Your task to perform on an android device: Open calendar and show me the fourth week of next month Image 0: 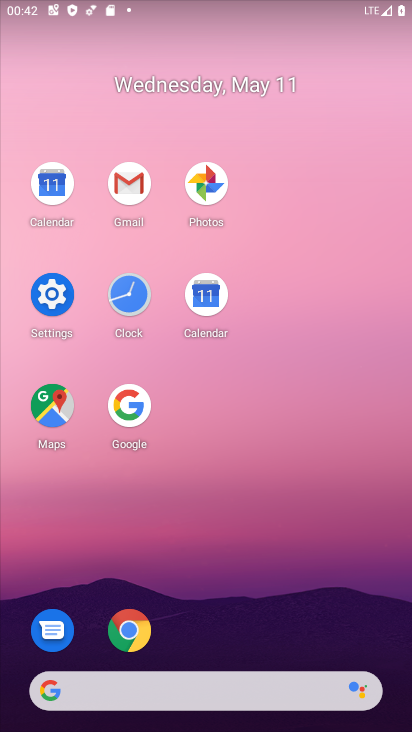
Step 0: click (206, 286)
Your task to perform on an android device: Open calendar and show me the fourth week of next month Image 1: 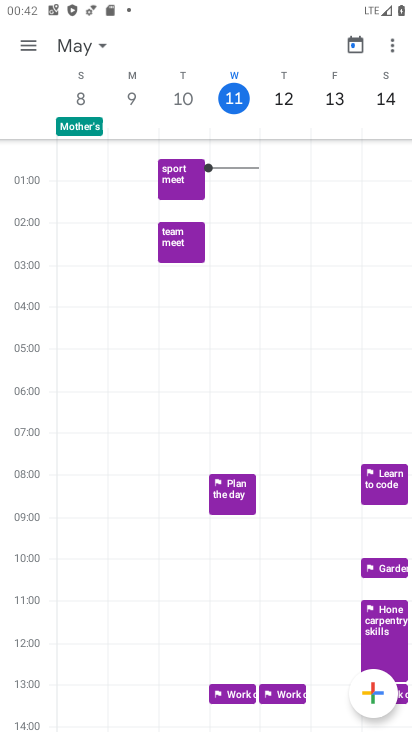
Step 1: click (84, 47)
Your task to perform on an android device: Open calendar and show me the fourth week of next month Image 2: 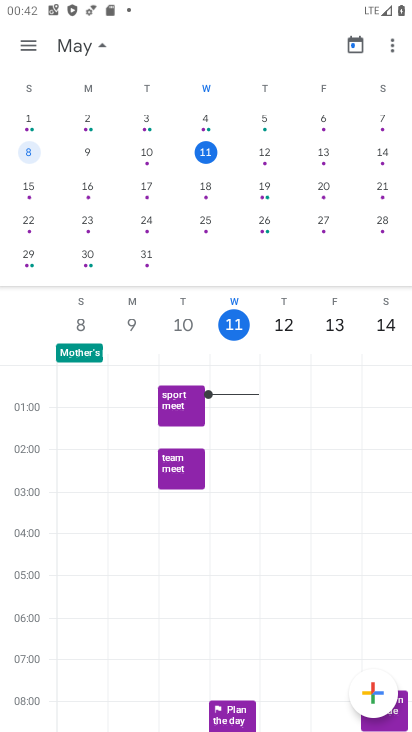
Step 2: drag from (388, 171) to (21, 142)
Your task to perform on an android device: Open calendar and show me the fourth week of next month Image 3: 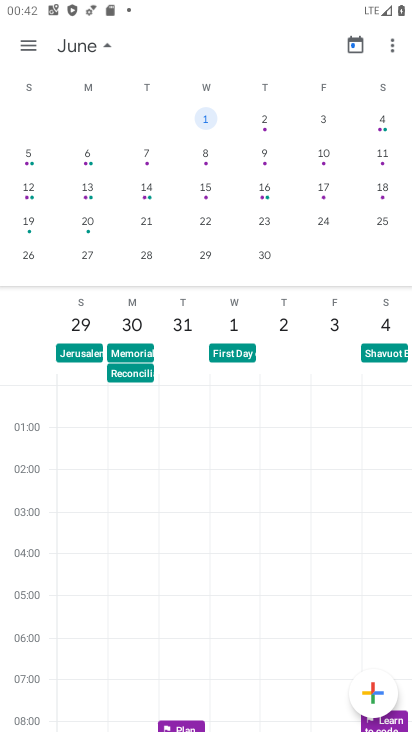
Step 3: click (40, 39)
Your task to perform on an android device: Open calendar and show me the fourth week of next month Image 4: 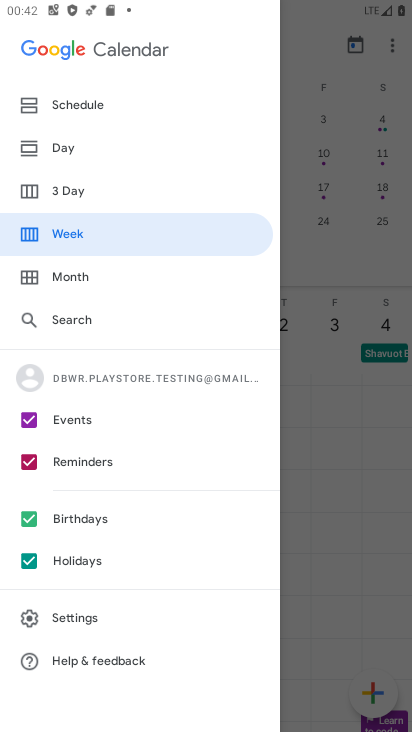
Step 4: click (137, 236)
Your task to perform on an android device: Open calendar and show me the fourth week of next month Image 5: 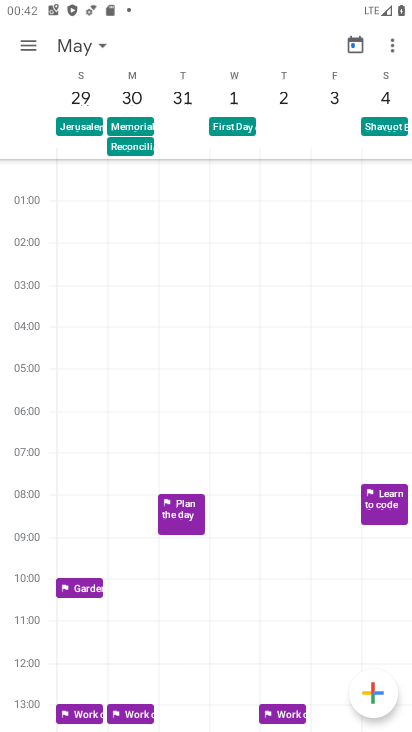
Step 5: task complete